Your task to perform on an android device: View the shopping cart on target.com. Search for lg ultragear on target.com, select the first entry, add it to the cart, then select checkout. Image 0: 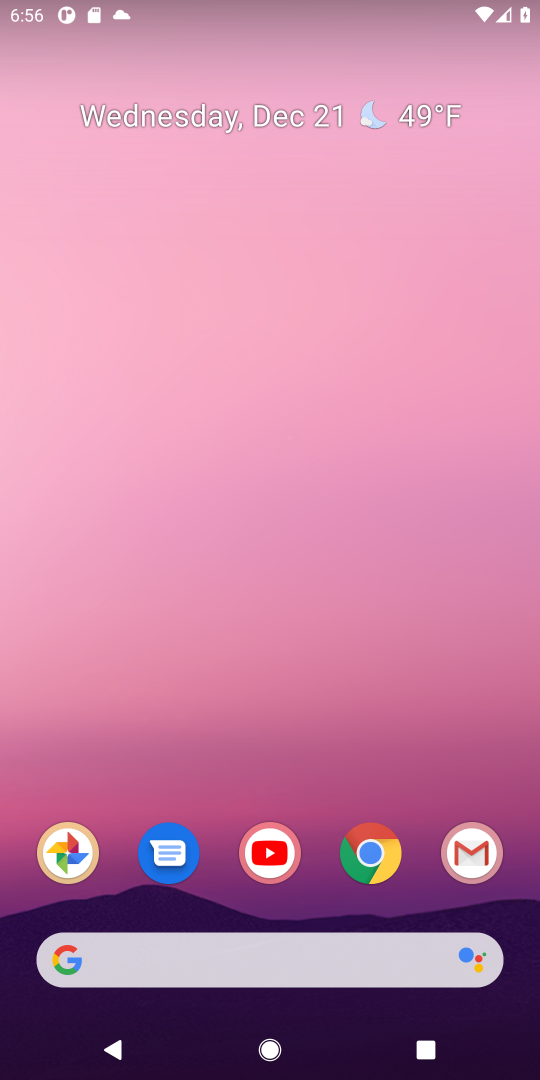
Step 0: click (359, 850)
Your task to perform on an android device: View the shopping cart on target.com. Search for lg ultragear on target.com, select the first entry, add it to the cart, then select checkout. Image 1: 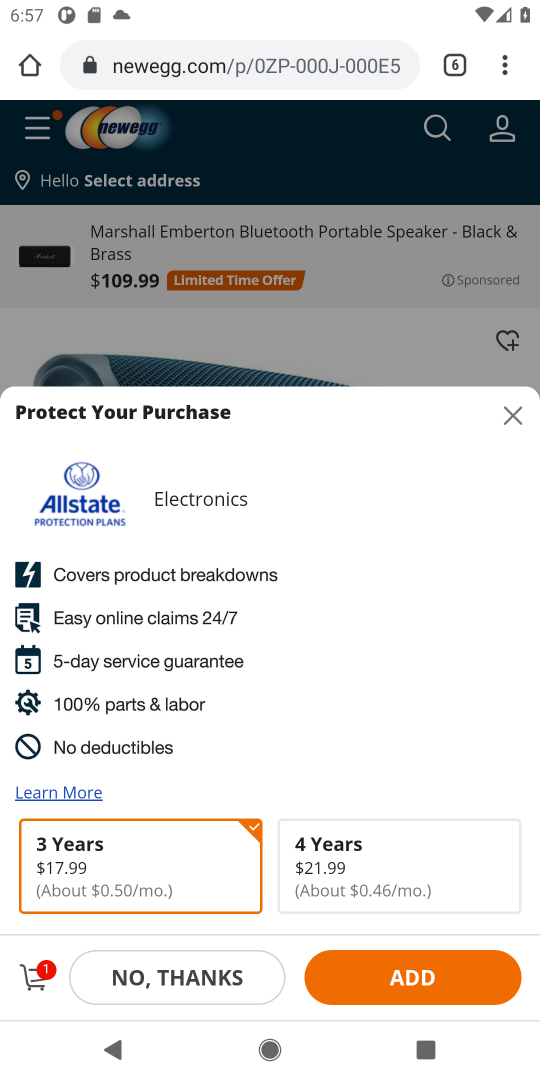
Step 1: click (453, 60)
Your task to perform on an android device: View the shopping cart on target.com. Search for lg ultragear on target.com, select the first entry, add it to the cart, then select checkout. Image 2: 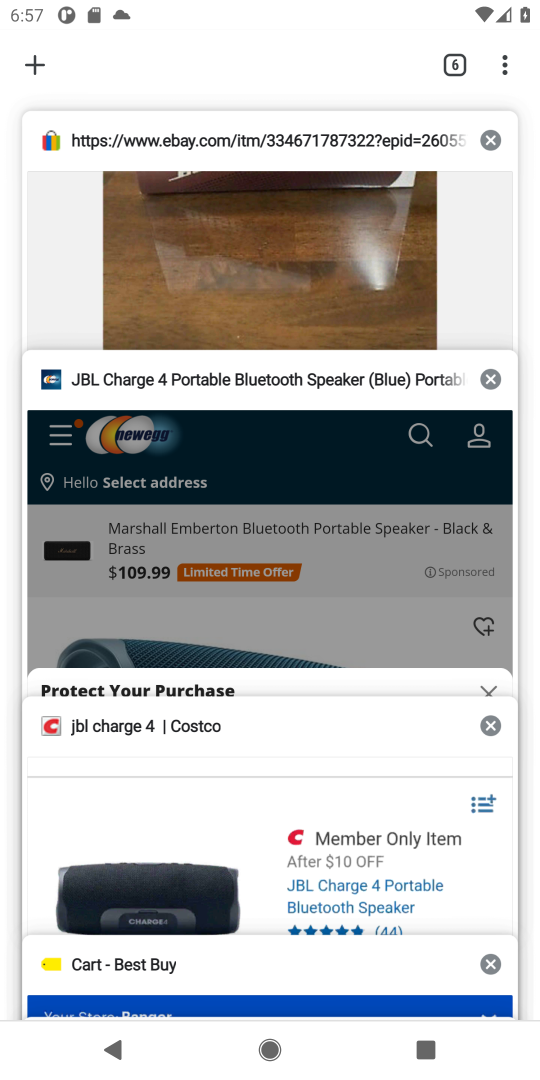
Step 2: drag from (191, 966) to (250, 584)
Your task to perform on an android device: View the shopping cart on target.com. Search for lg ultragear on target.com, select the first entry, add it to the cart, then select checkout. Image 3: 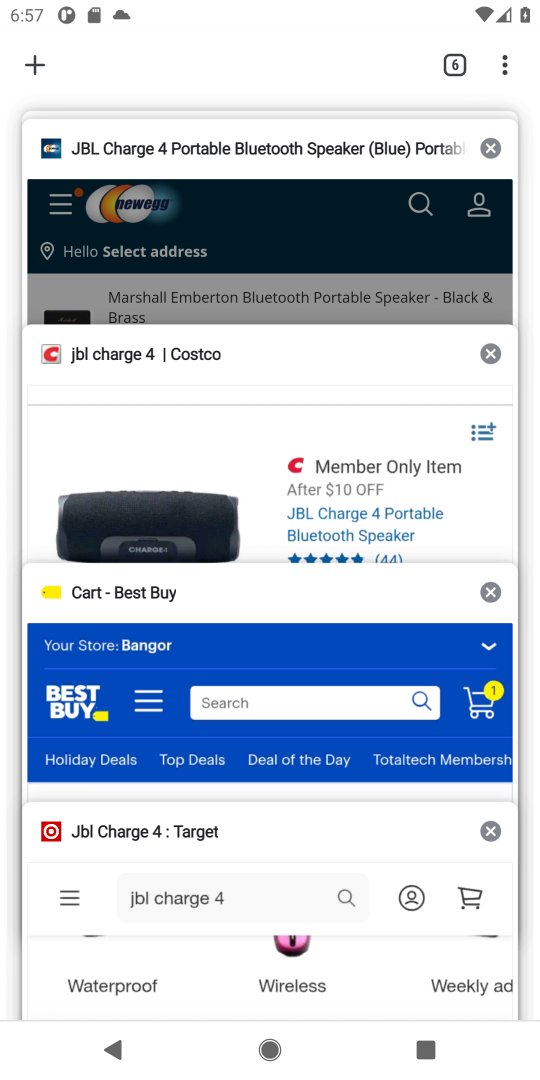
Step 3: click (110, 907)
Your task to perform on an android device: View the shopping cart on target.com. Search for lg ultragear on target.com, select the first entry, add it to the cart, then select checkout. Image 4: 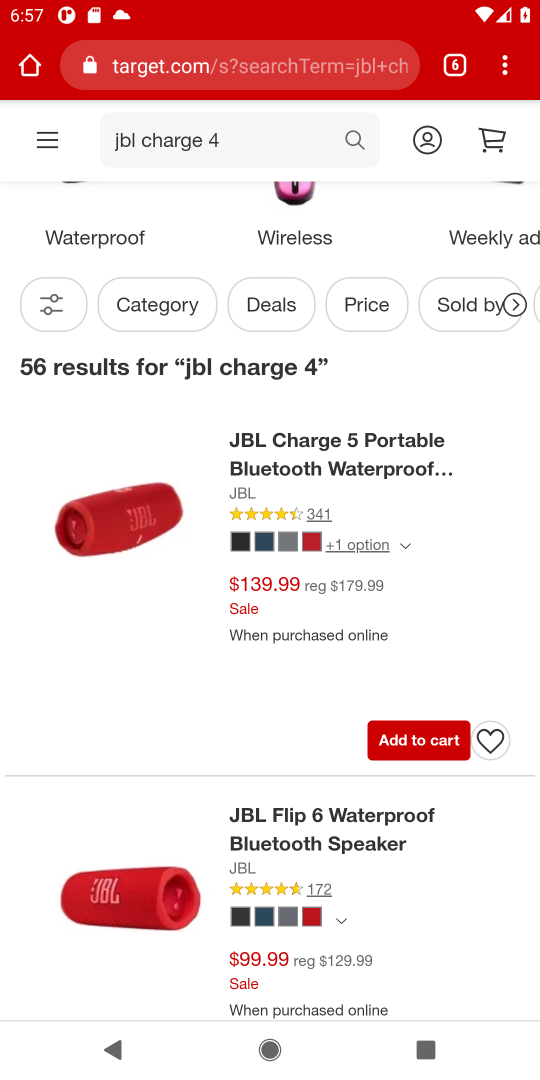
Step 4: click (247, 129)
Your task to perform on an android device: View the shopping cart on target.com. Search for lg ultragear on target.com, select the first entry, add it to the cart, then select checkout. Image 5: 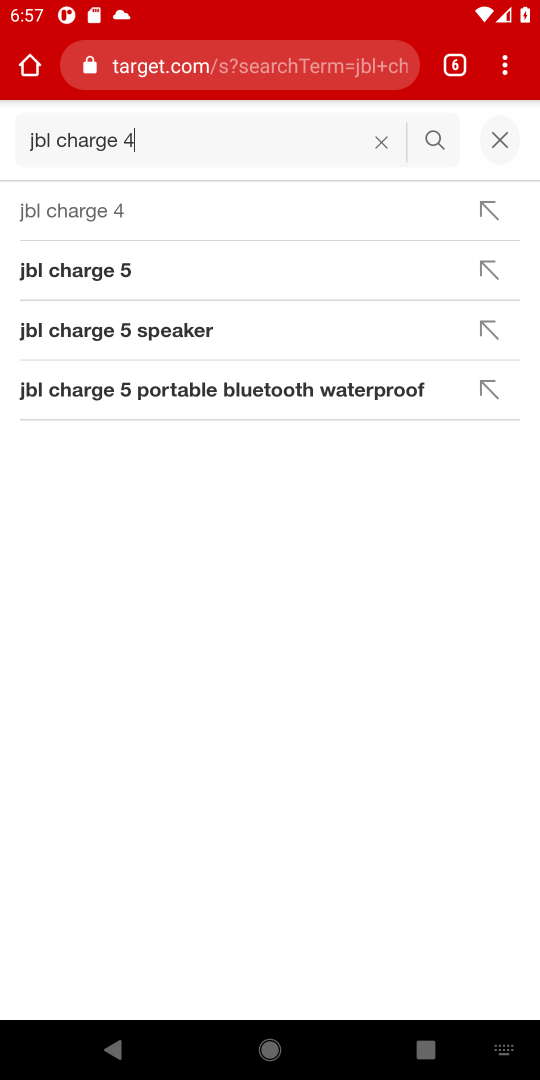
Step 5: click (378, 147)
Your task to perform on an android device: View the shopping cart on target.com. Search for lg ultragear on target.com, select the first entry, add it to the cart, then select checkout. Image 6: 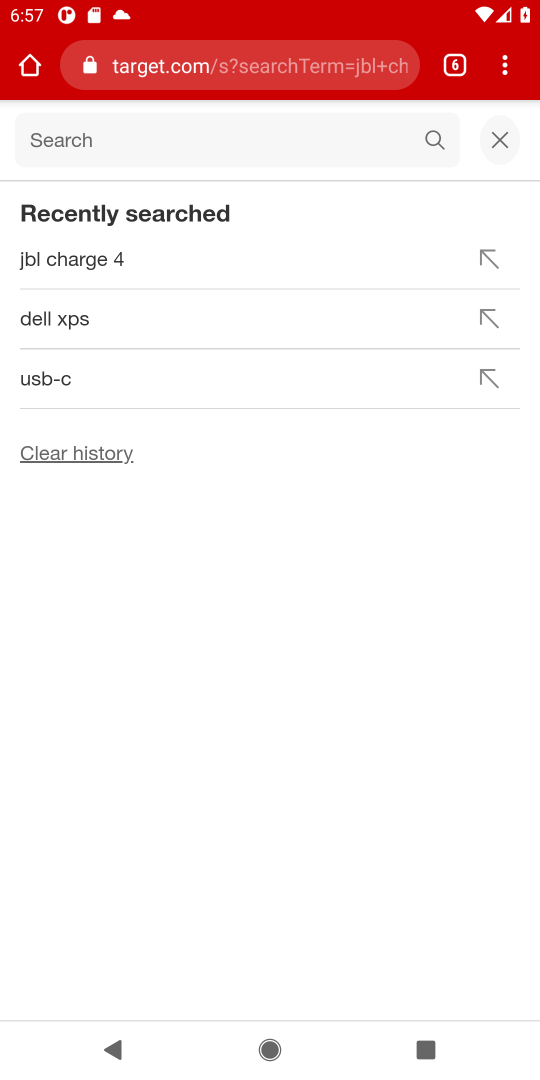
Step 6: click (96, 143)
Your task to perform on an android device: View the shopping cart on target.com. Search for lg ultragear on target.com, select the first entry, add it to the cart, then select checkout. Image 7: 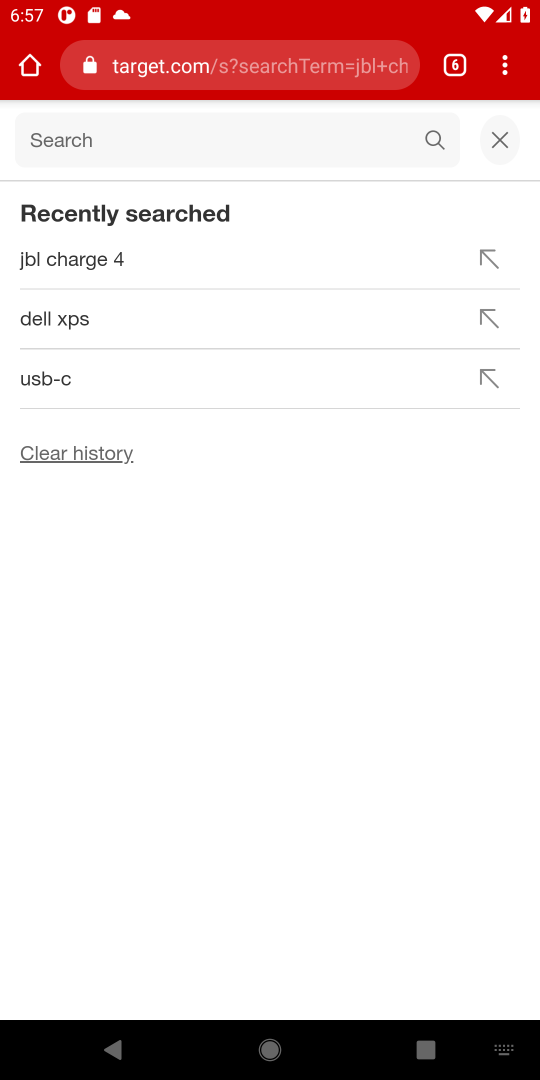
Step 7: type "lg ultragear"
Your task to perform on an android device: View the shopping cart on target.com. Search for lg ultragear on target.com, select the first entry, add it to the cart, then select checkout. Image 8: 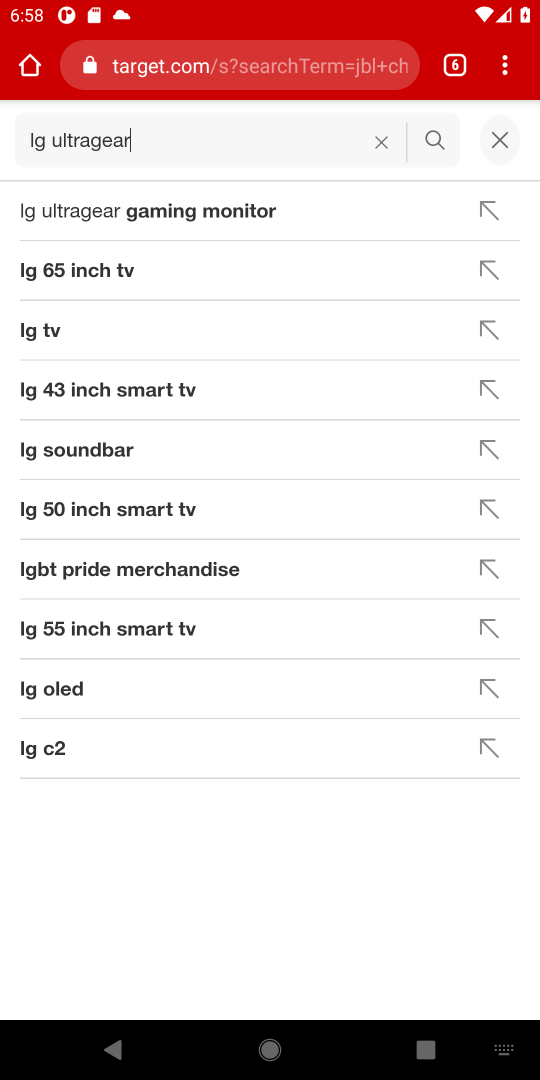
Step 8: click (436, 137)
Your task to perform on an android device: View the shopping cart on target.com. Search for lg ultragear on target.com, select the first entry, add it to the cart, then select checkout. Image 9: 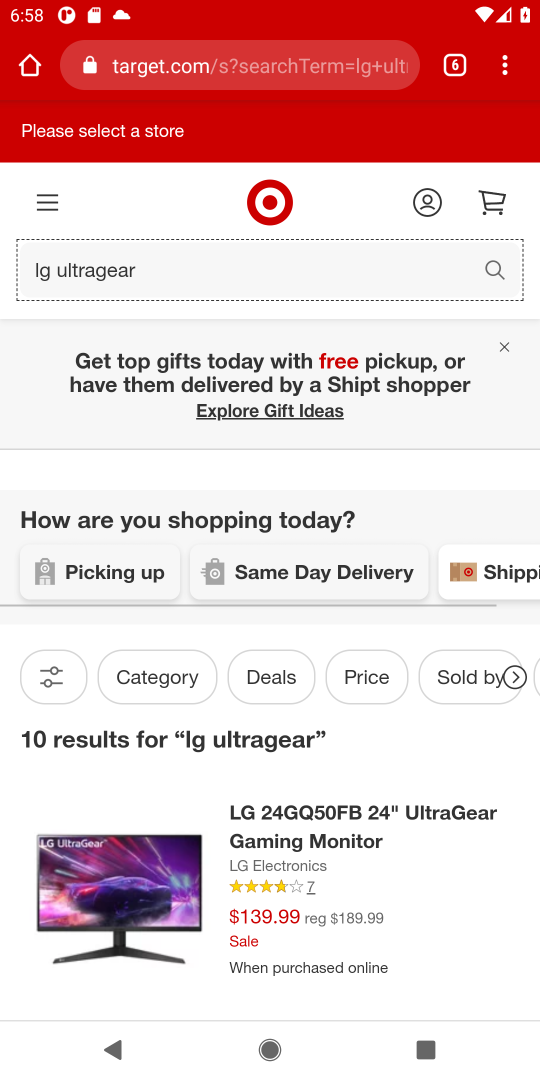
Step 9: drag from (404, 912) to (447, 485)
Your task to perform on an android device: View the shopping cart on target.com. Search for lg ultragear on target.com, select the first entry, add it to the cart, then select checkout. Image 10: 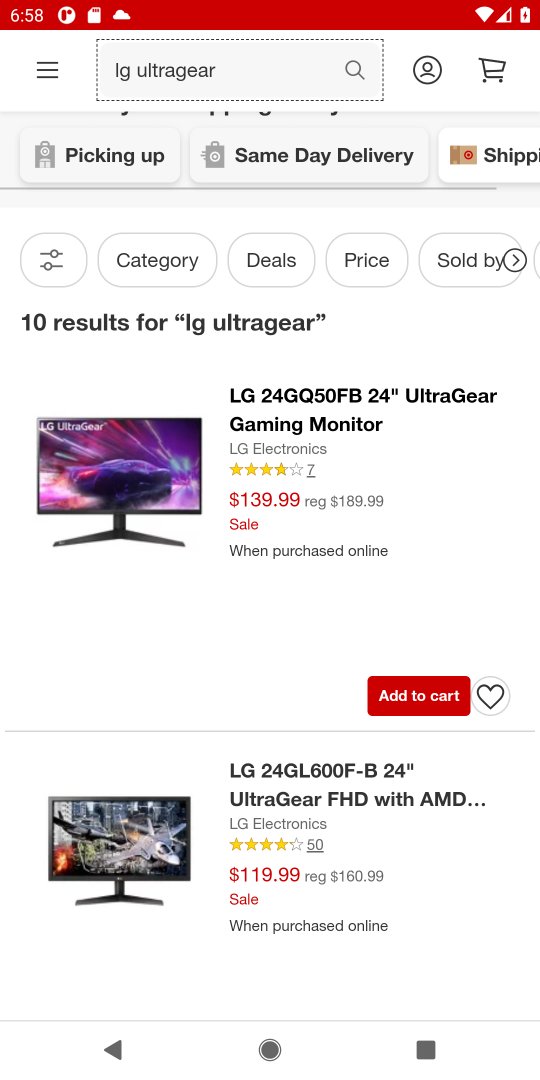
Step 10: click (411, 684)
Your task to perform on an android device: View the shopping cart on target.com. Search for lg ultragear on target.com, select the first entry, add it to the cart, then select checkout. Image 11: 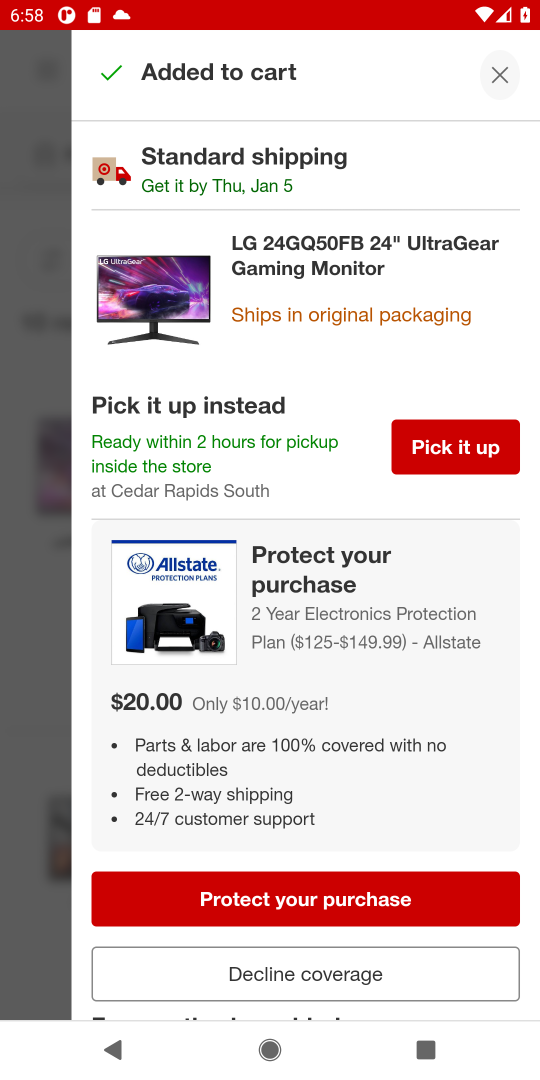
Step 11: task complete